Your task to perform on an android device: What's the US dollar exchange rate against the Brazilian Real? Image 0: 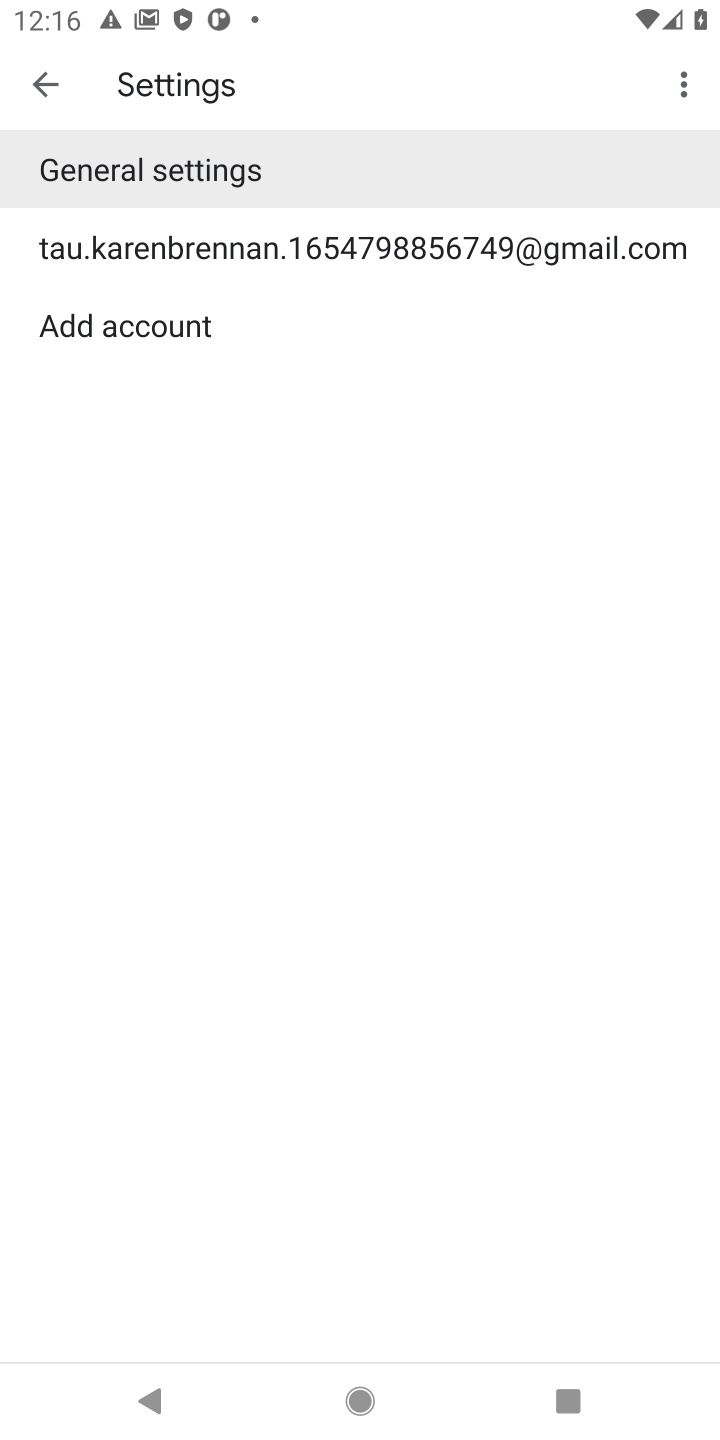
Step 0: press home button
Your task to perform on an android device: What's the US dollar exchange rate against the Brazilian Real? Image 1: 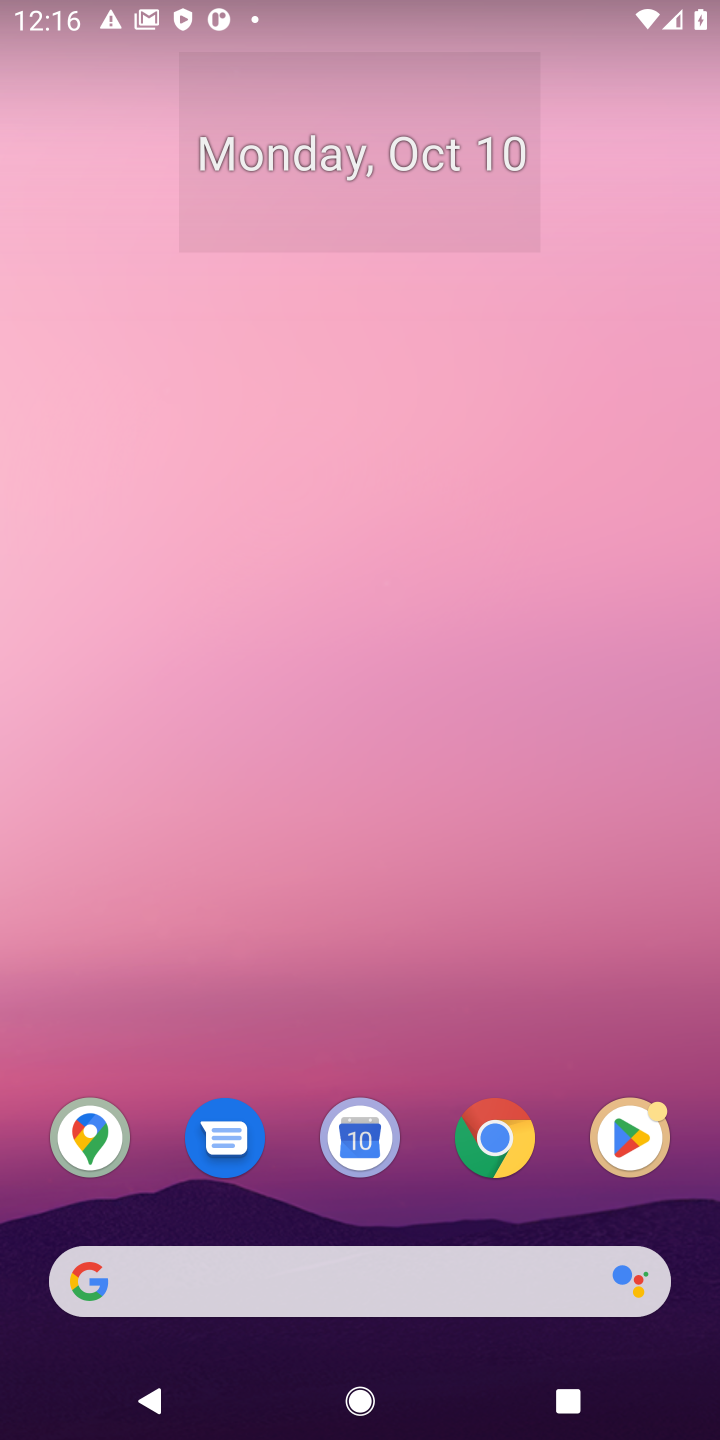
Step 1: click (495, 1143)
Your task to perform on an android device: What's the US dollar exchange rate against the Brazilian Real? Image 2: 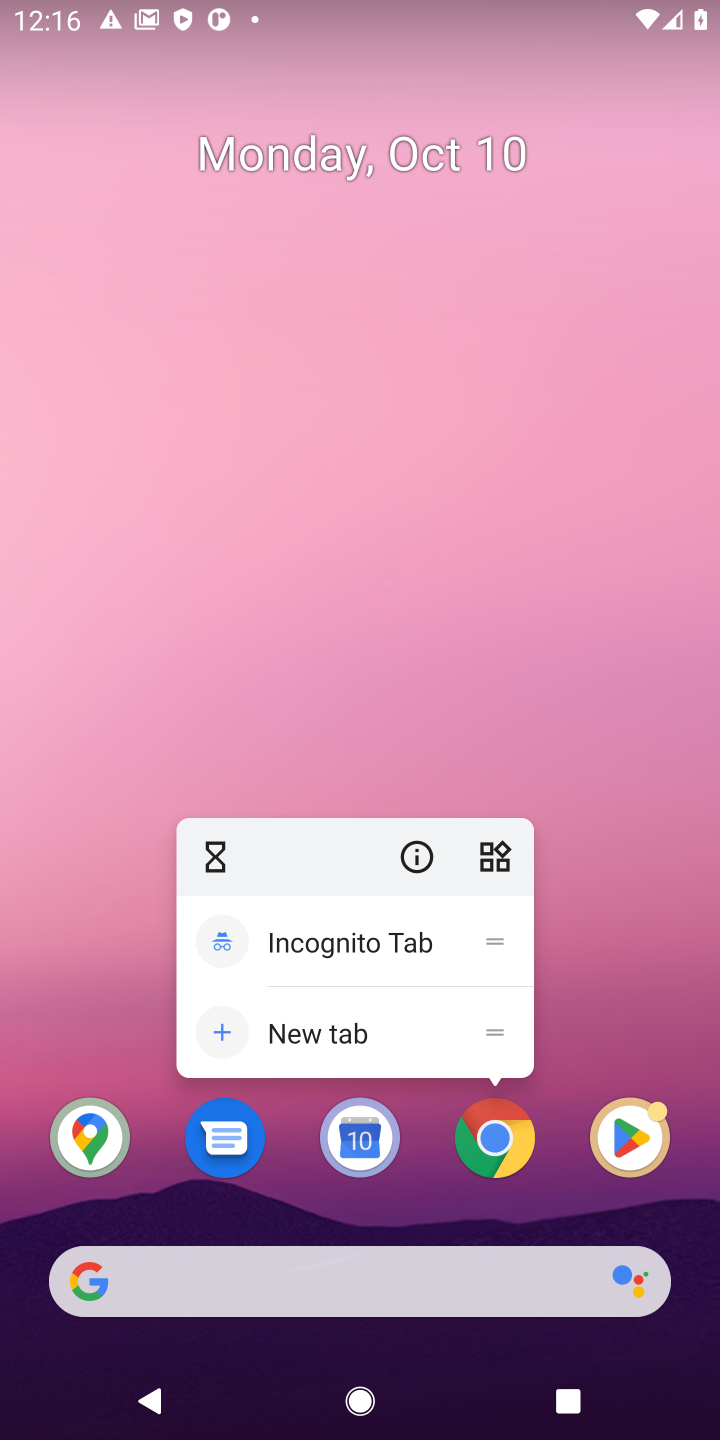
Step 2: click (495, 1143)
Your task to perform on an android device: What's the US dollar exchange rate against the Brazilian Real? Image 3: 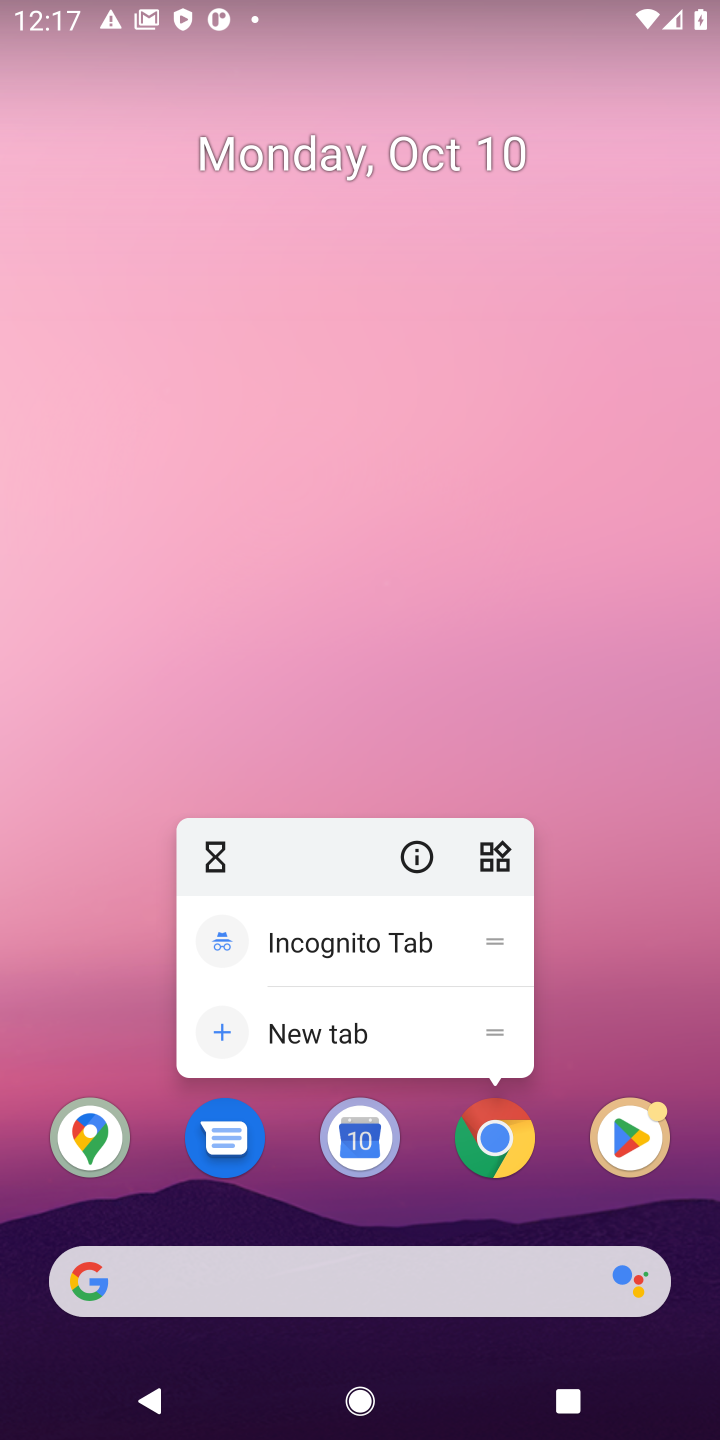
Step 3: click (495, 1143)
Your task to perform on an android device: What's the US dollar exchange rate against the Brazilian Real? Image 4: 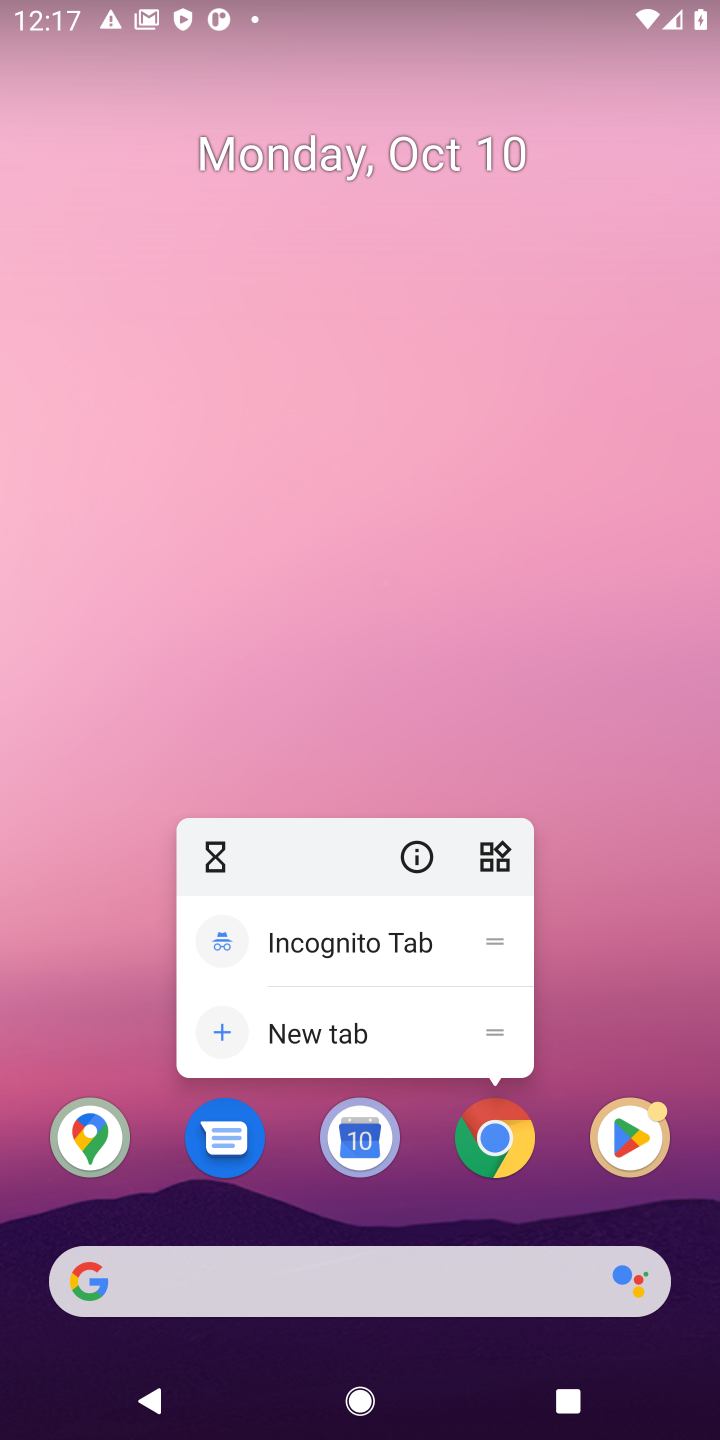
Step 4: click (495, 1143)
Your task to perform on an android device: What's the US dollar exchange rate against the Brazilian Real? Image 5: 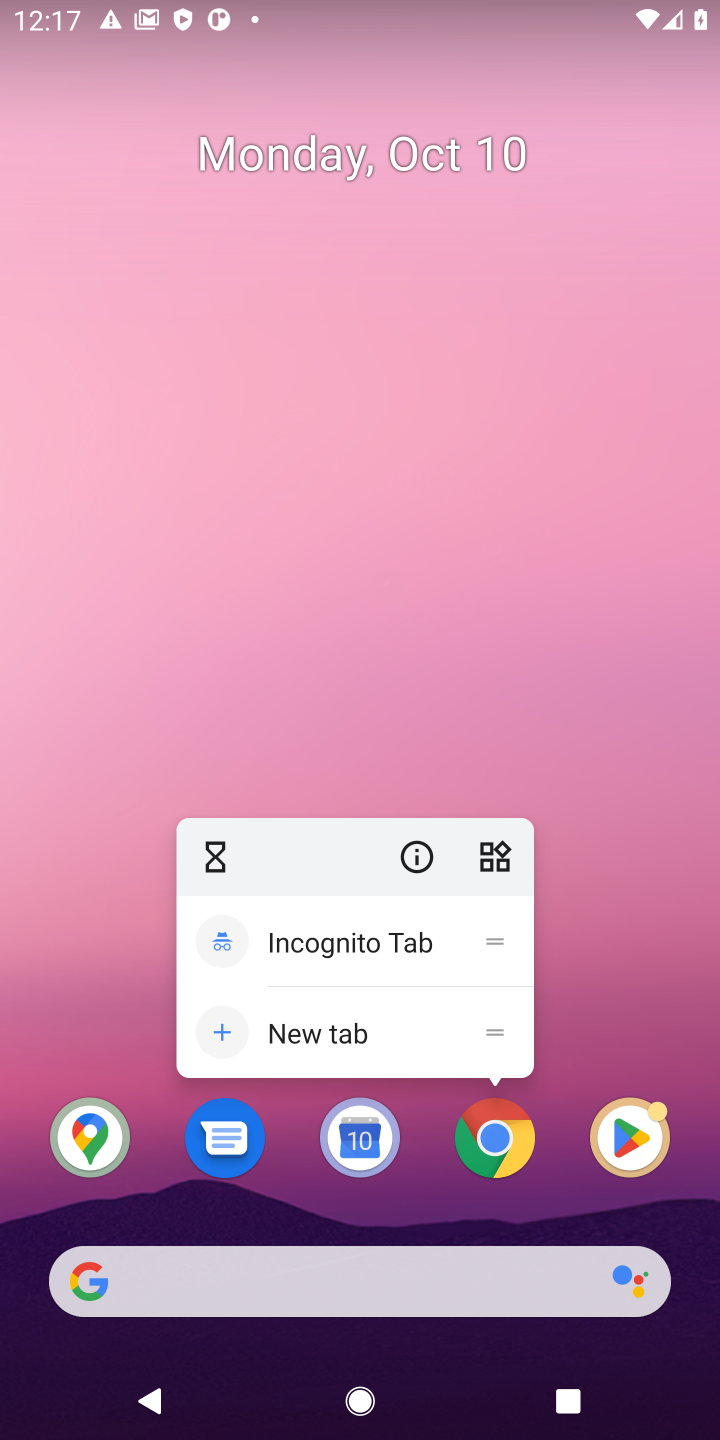
Step 5: click (495, 1143)
Your task to perform on an android device: What's the US dollar exchange rate against the Brazilian Real? Image 6: 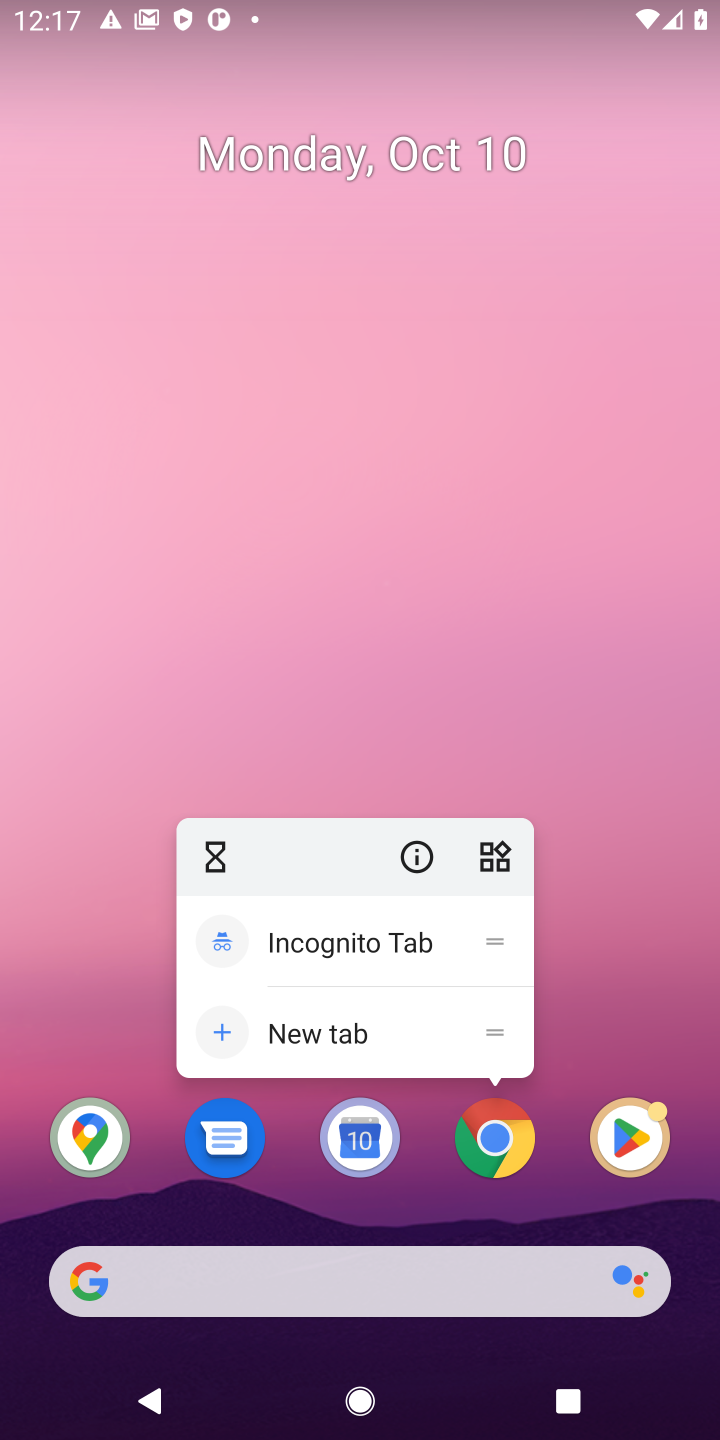
Step 6: click (495, 1143)
Your task to perform on an android device: What's the US dollar exchange rate against the Brazilian Real? Image 7: 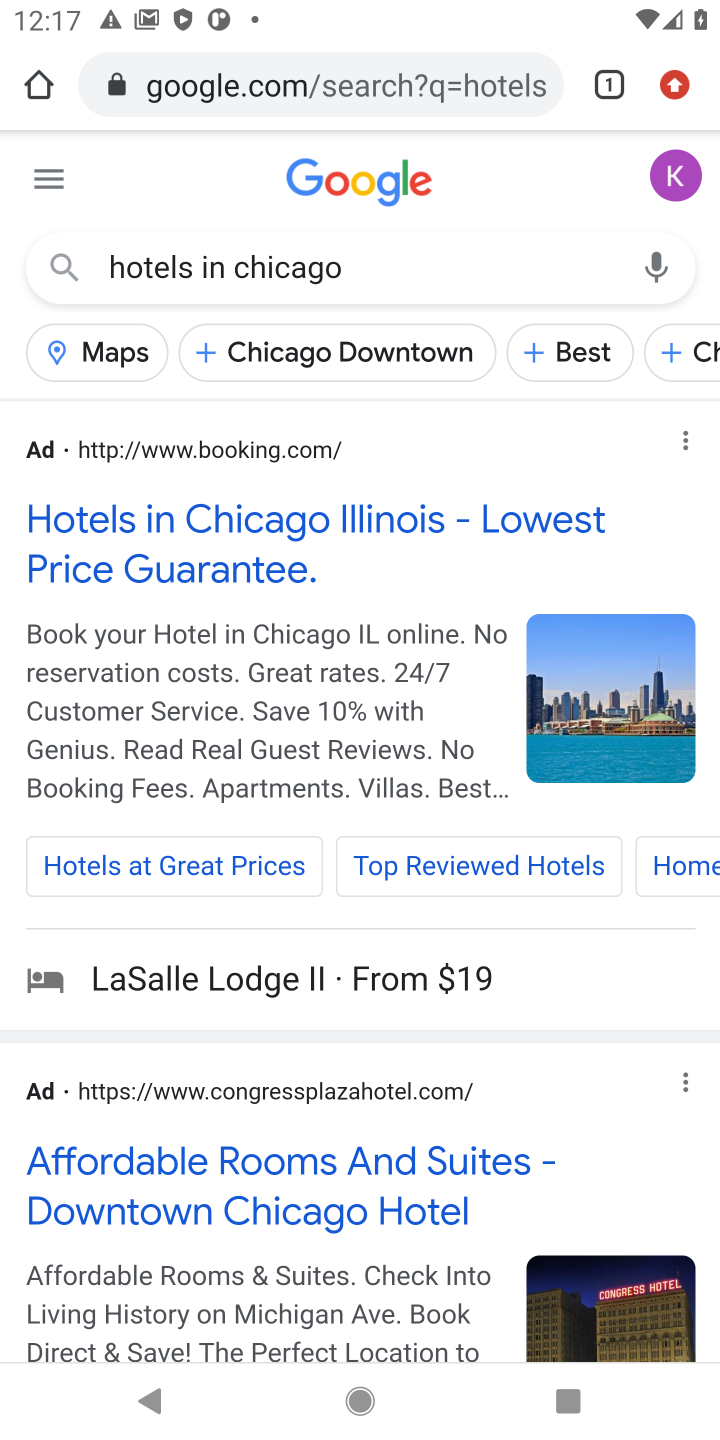
Step 7: click (412, 281)
Your task to perform on an android device: What's the US dollar exchange rate against the Brazilian Real? Image 8: 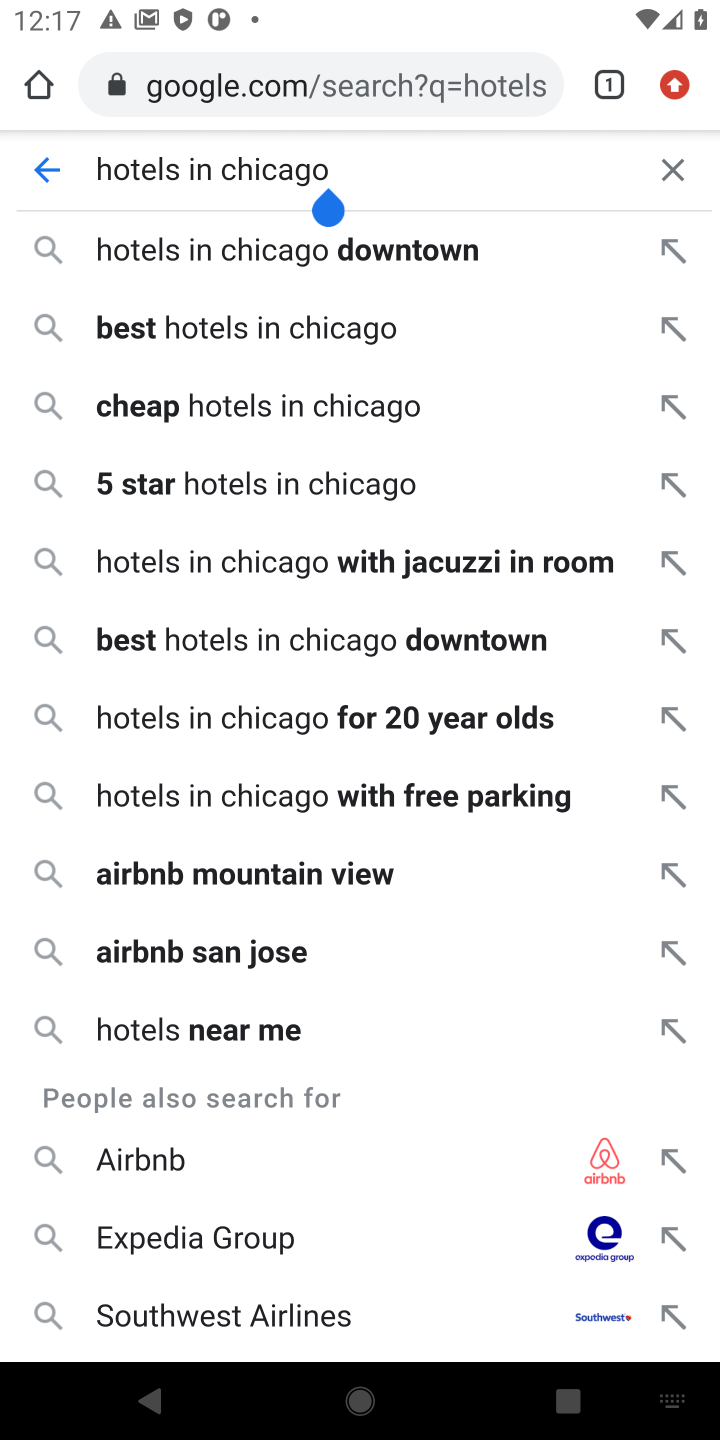
Step 8: click (675, 165)
Your task to perform on an android device: What's the US dollar exchange rate against the Brazilian Real? Image 9: 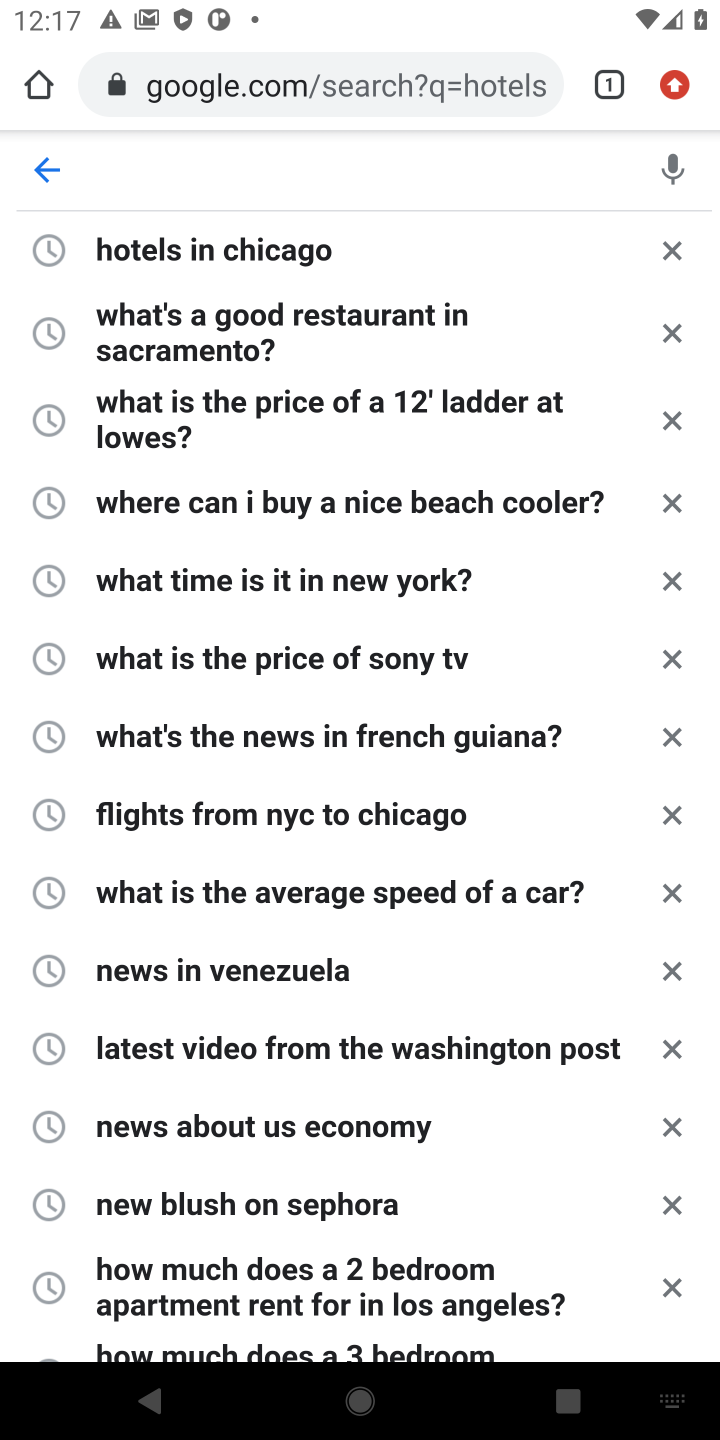
Step 9: type "What's the US dollar exchange rate against the Brazilian Real?"
Your task to perform on an android device: What's the US dollar exchange rate against the Brazilian Real? Image 10: 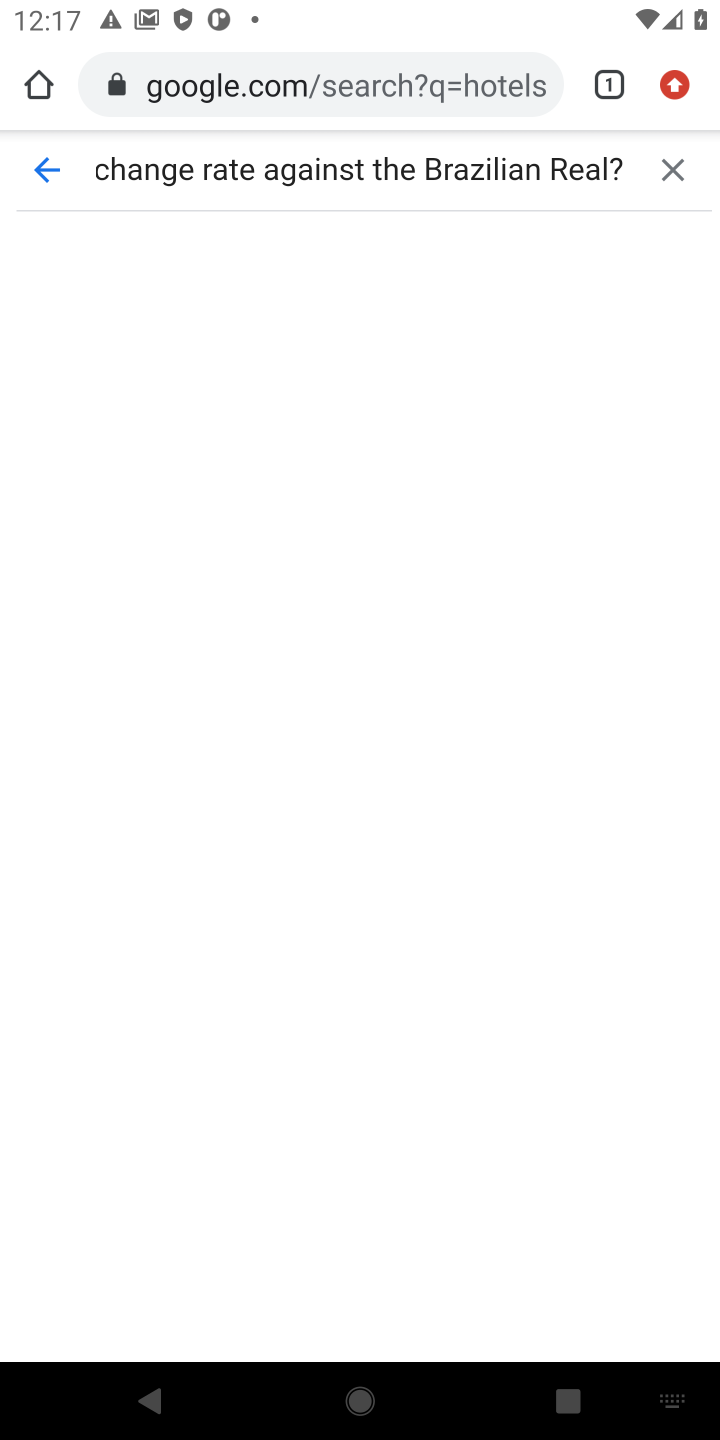
Step 10: press enter
Your task to perform on an android device: What's the US dollar exchange rate against the Brazilian Real? Image 11: 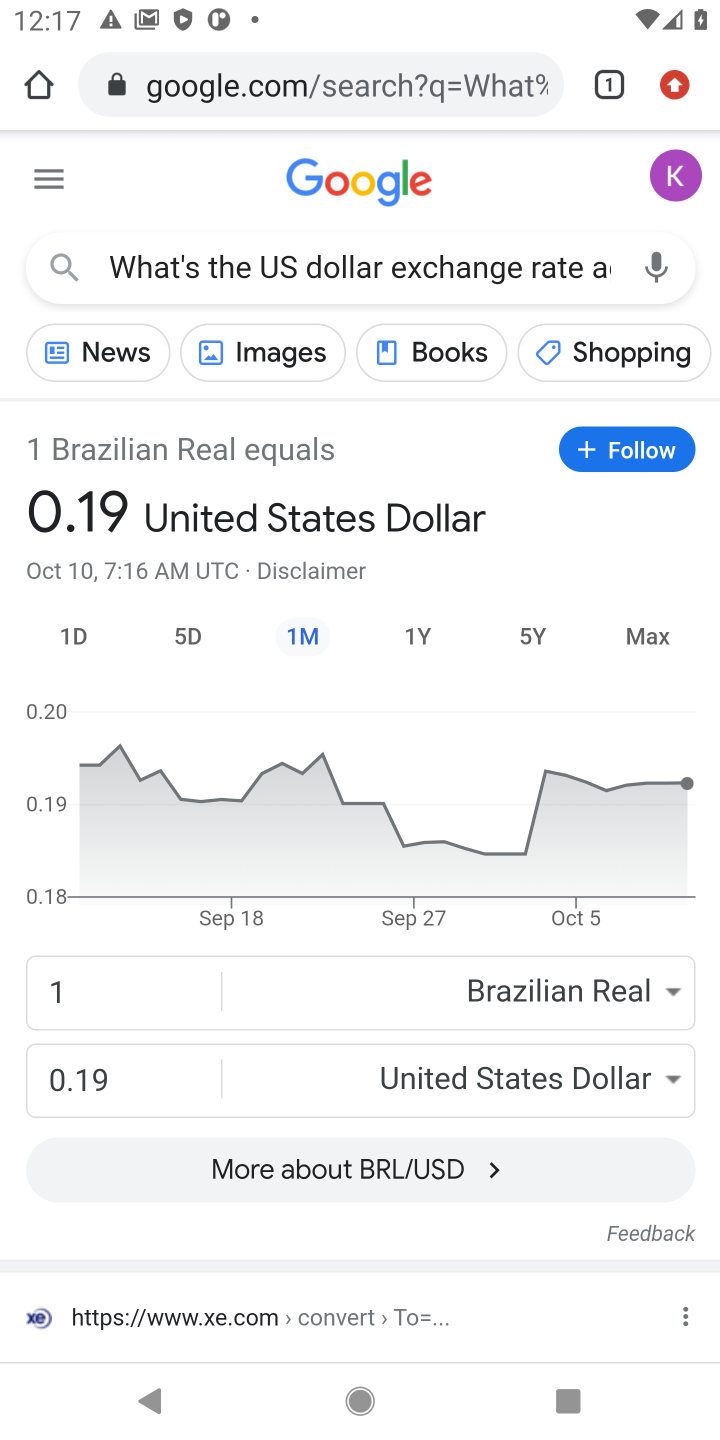
Step 11: task complete